Your task to perform on an android device: create a new album in the google photos Image 0: 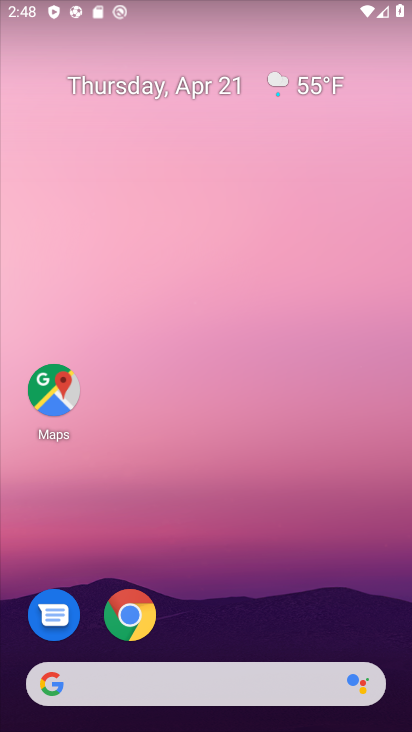
Step 0: drag from (207, 686) to (364, 214)
Your task to perform on an android device: create a new album in the google photos Image 1: 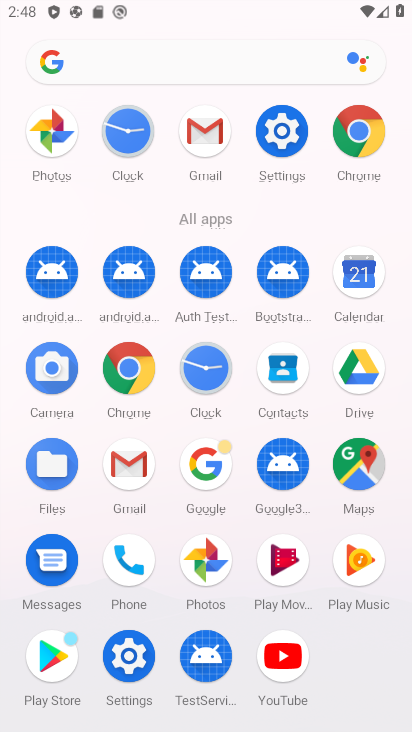
Step 1: click (199, 565)
Your task to perform on an android device: create a new album in the google photos Image 2: 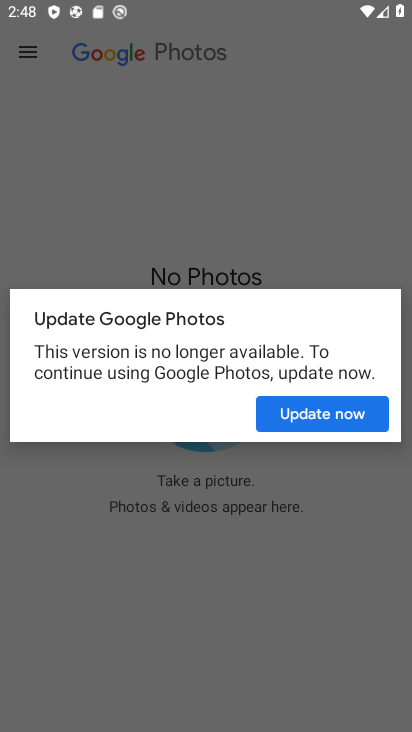
Step 2: click (338, 415)
Your task to perform on an android device: create a new album in the google photos Image 3: 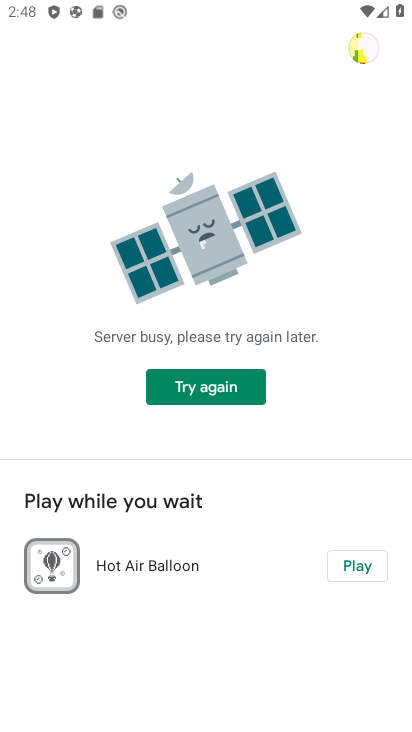
Step 3: press back button
Your task to perform on an android device: create a new album in the google photos Image 4: 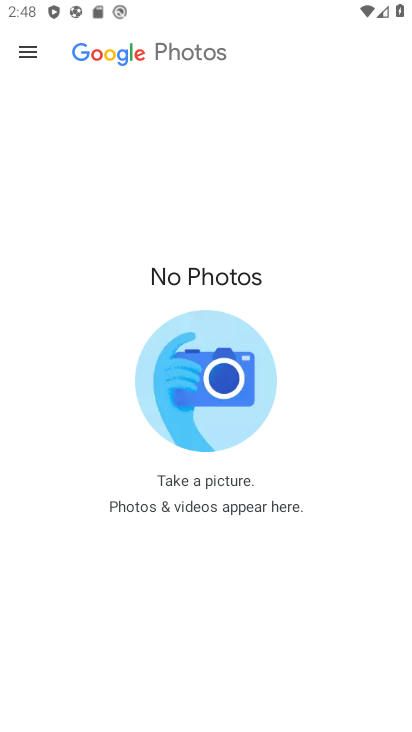
Step 4: press back button
Your task to perform on an android device: create a new album in the google photos Image 5: 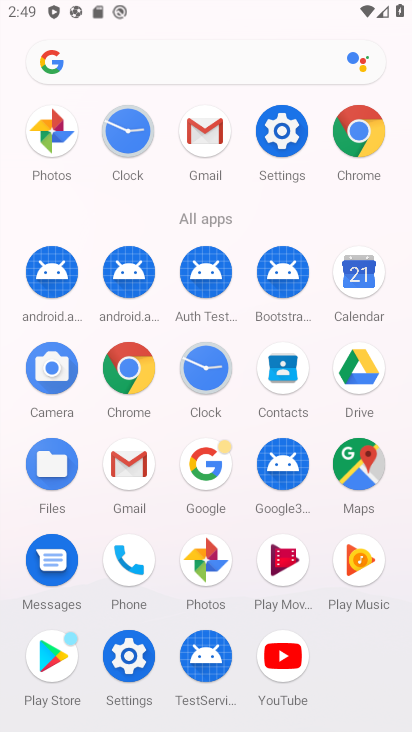
Step 5: click (206, 558)
Your task to perform on an android device: create a new album in the google photos Image 6: 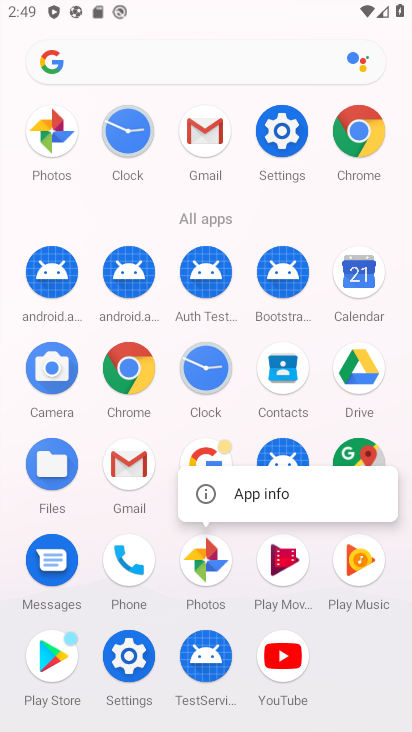
Step 6: click (204, 567)
Your task to perform on an android device: create a new album in the google photos Image 7: 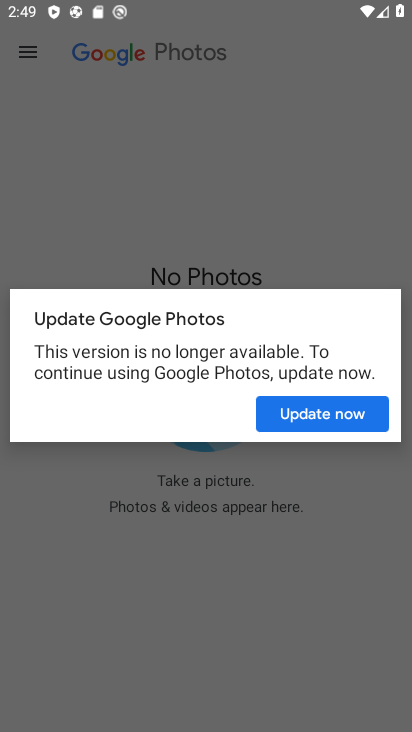
Step 7: click (25, 57)
Your task to perform on an android device: create a new album in the google photos Image 8: 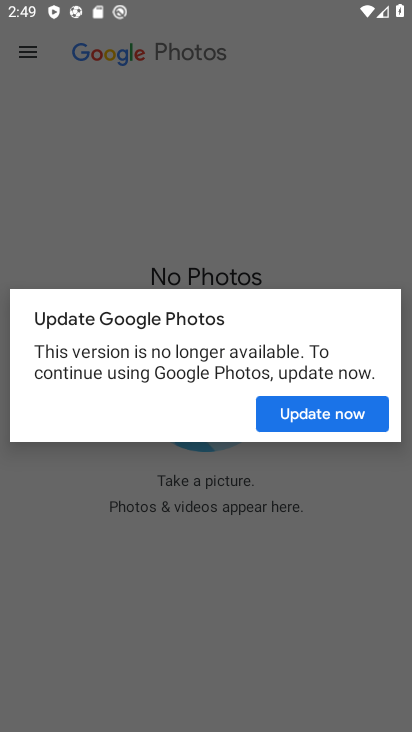
Step 8: click (293, 409)
Your task to perform on an android device: create a new album in the google photos Image 9: 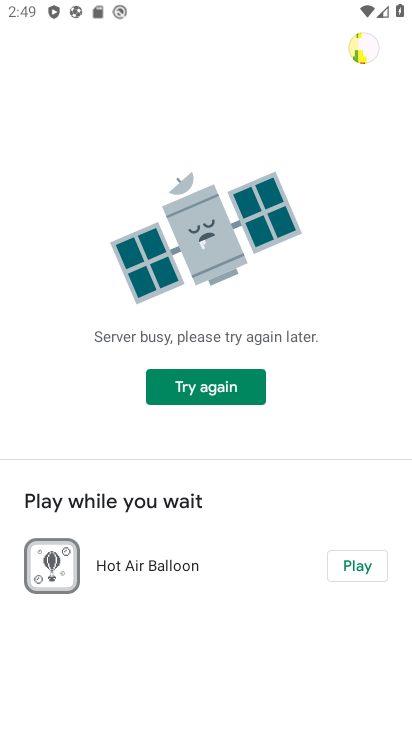
Step 9: press back button
Your task to perform on an android device: create a new album in the google photos Image 10: 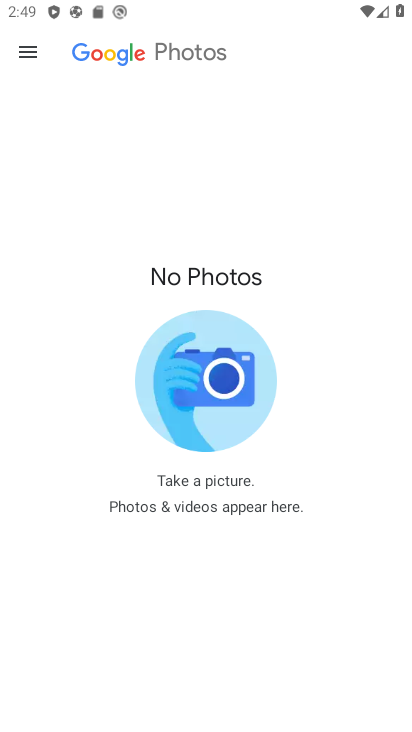
Step 10: click (26, 48)
Your task to perform on an android device: create a new album in the google photos Image 11: 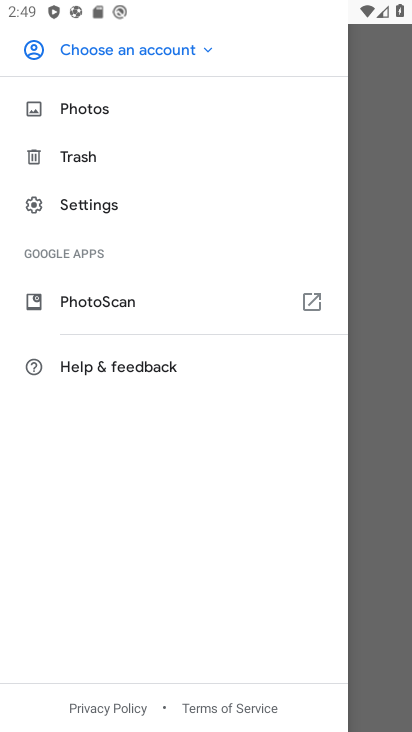
Step 11: click (85, 105)
Your task to perform on an android device: create a new album in the google photos Image 12: 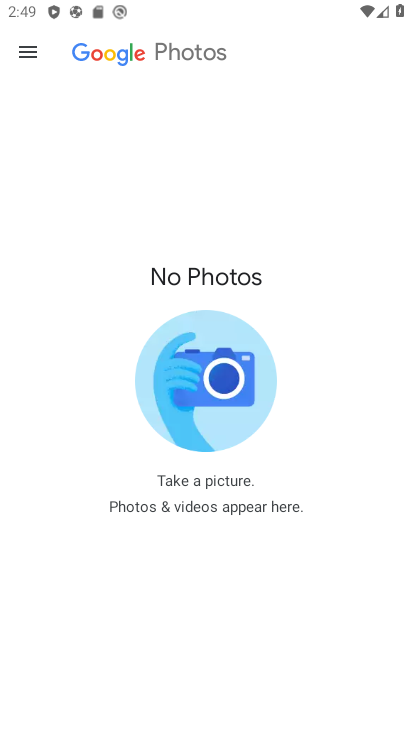
Step 12: task complete